Your task to perform on an android device: open sync settings in chrome Image 0: 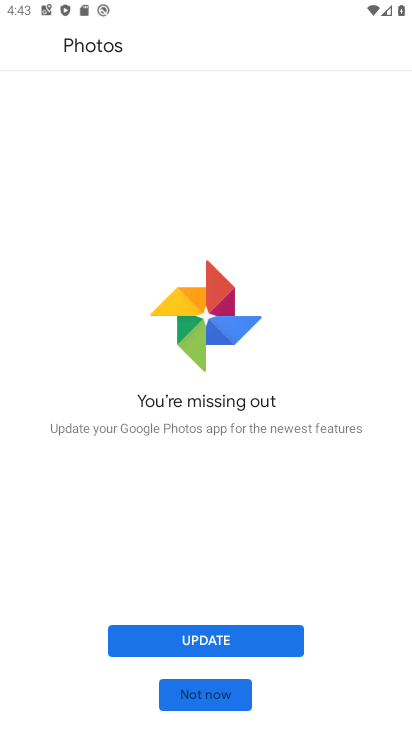
Step 0: press home button
Your task to perform on an android device: open sync settings in chrome Image 1: 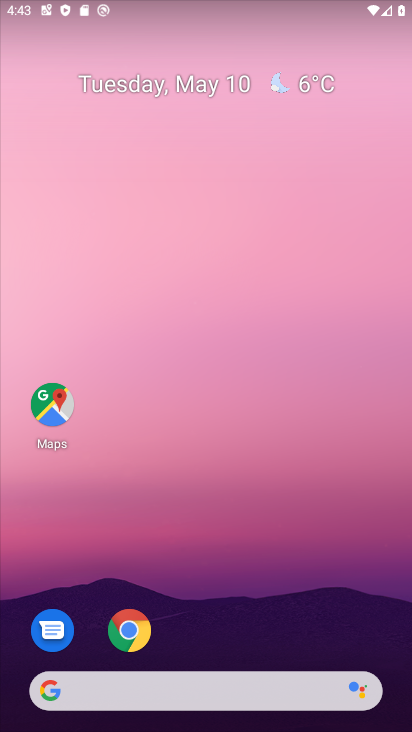
Step 1: drag from (278, 644) to (263, 212)
Your task to perform on an android device: open sync settings in chrome Image 2: 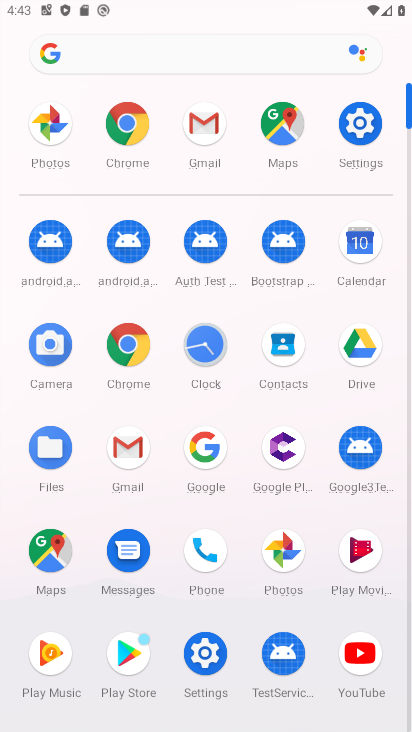
Step 2: click (129, 119)
Your task to perform on an android device: open sync settings in chrome Image 3: 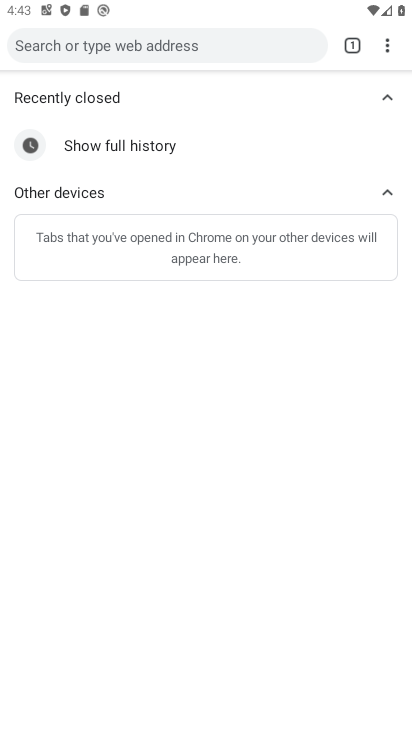
Step 3: drag from (385, 48) to (231, 392)
Your task to perform on an android device: open sync settings in chrome Image 4: 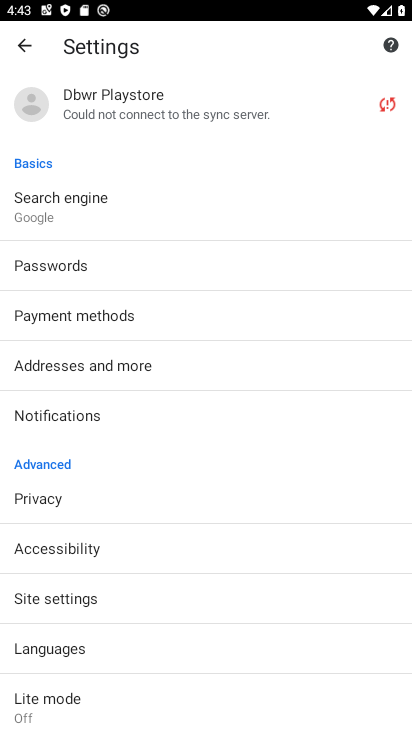
Step 4: drag from (256, 637) to (245, 190)
Your task to perform on an android device: open sync settings in chrome Image 5: 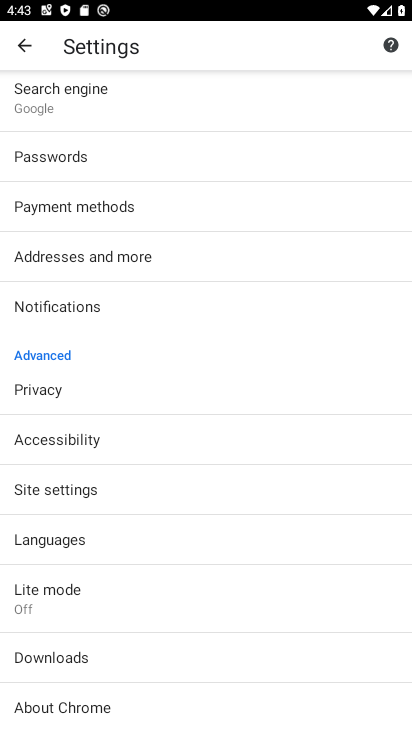
Step 5: drag from (175, 174) to (121, 625)
Your task to perform on an android device: open sync settings in chrome Image 6: 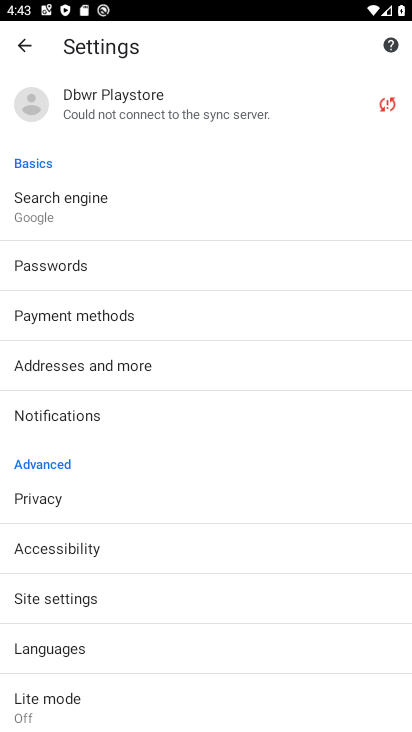
Step 6: click (145, 109)
Your task to perform on an android device: open sync settings in chrome Image 7: 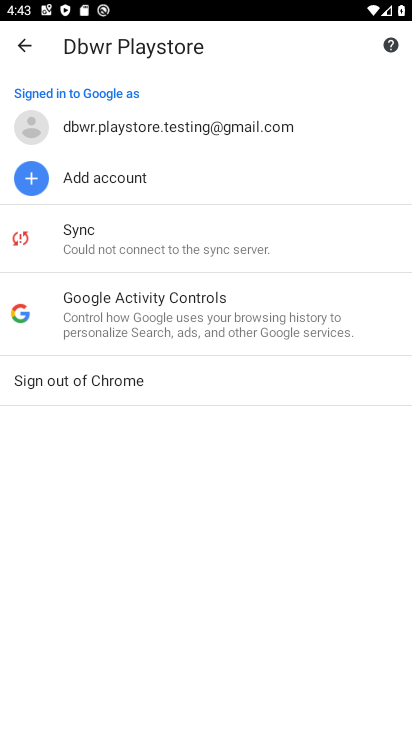
Step 7: click (227, 241)
Your task to perform on an android device: open sync settings in chrome Image 8: 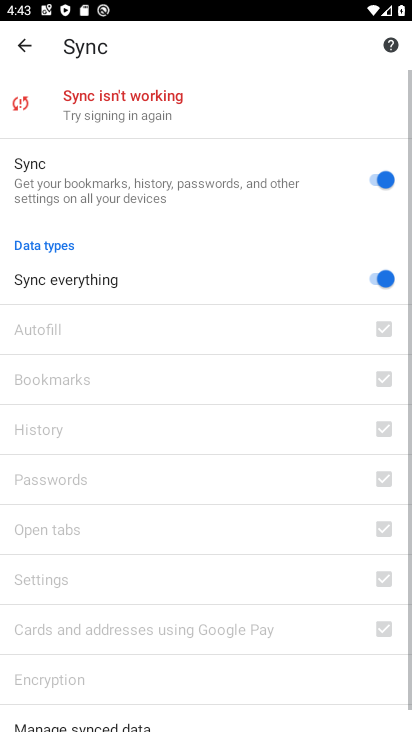
Step 8: task complete